Your task to perform on an android device: Go to notification settings Image 0: 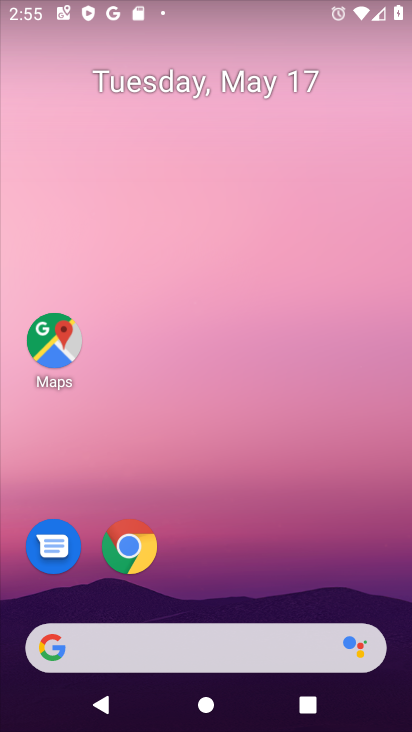
Step 0: drag from (400, 644) to (394, 326)
Your task to perform on an android device: Go to notification settings Image 1: 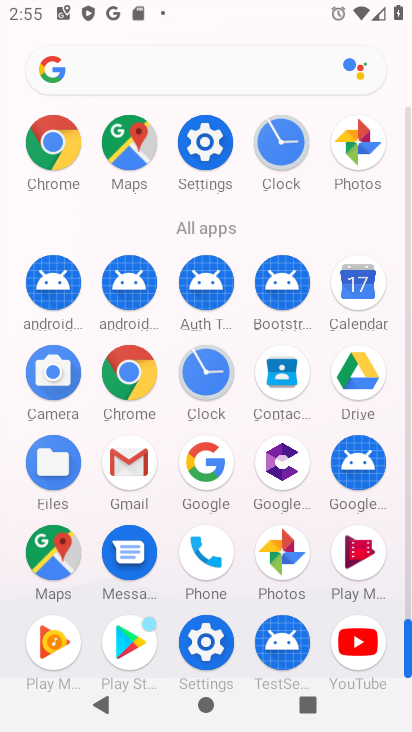
Step 1: click (202, 141)
Your task to perform on an android device: Go to notification settings Image 2: 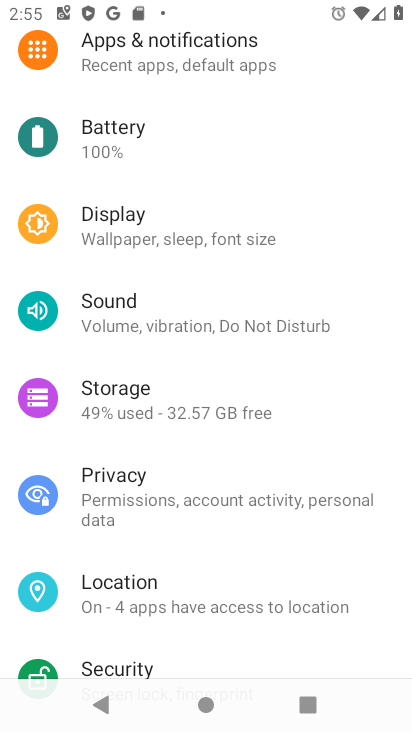
Step 2: click (167, 56)
Your task to perform on an android device: Go to notification settings Image 3: 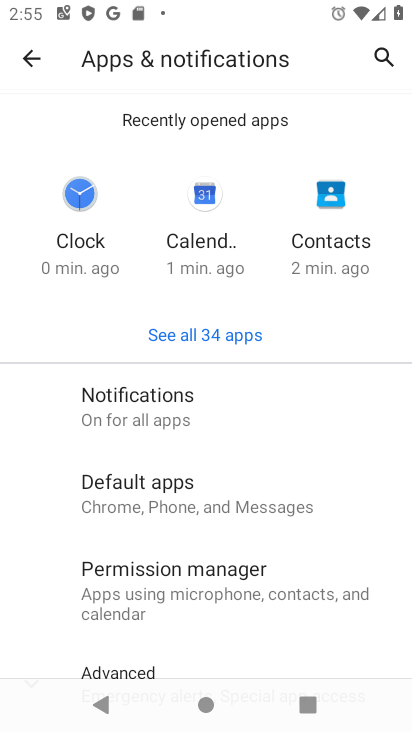
Step 3: task complete